Your task to perform on an android device: Set the phone to "Do not disturb". Image 0: 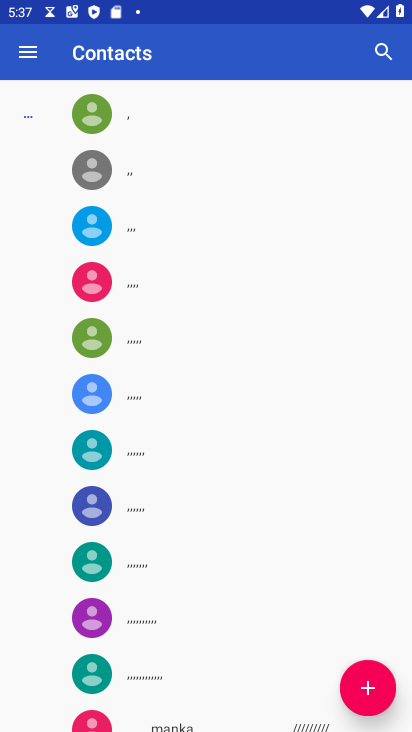
Step 0: press home button
Your task to perform on an android device: Set the phone to "Do not disturb". Image 1: 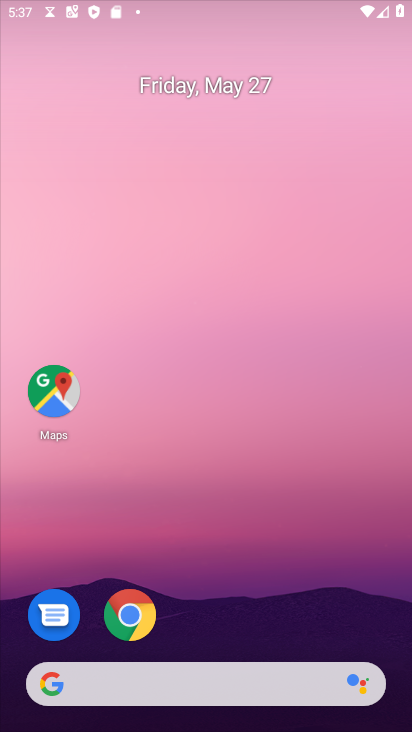
Step 1: drag from (330, 617) to (231, 10)
Your task to perform on an android device: Set the phone to "Do not disturb". Image 2: 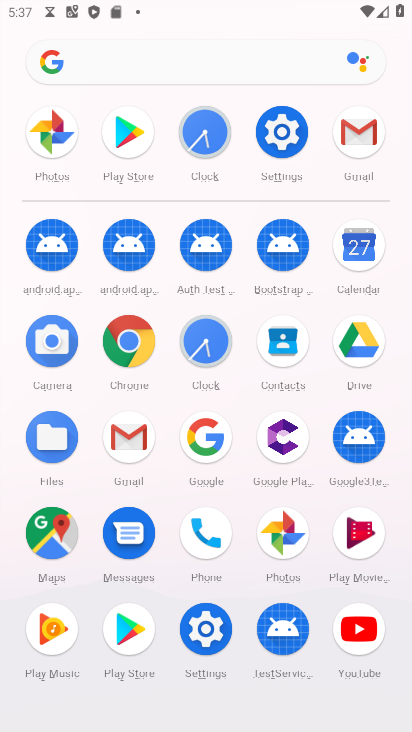
Step 2: click (295, 122)
Your task to perform on an android device: Set the phone to "Do not disturb". Image 3: 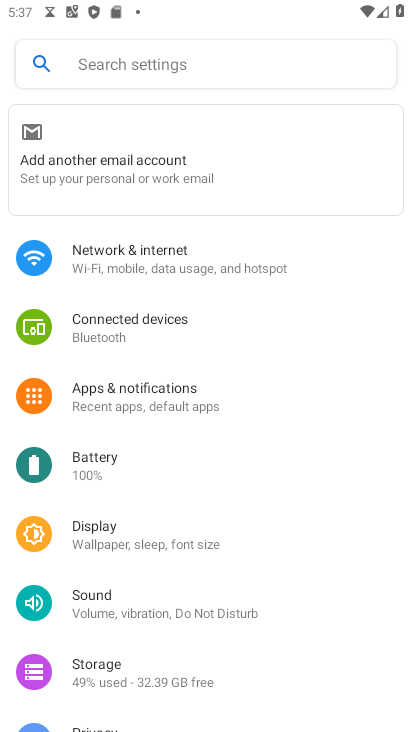
Step 3: click (148, 594)
Your task to perform on an android device: Set the phone to "Do not disturb". Image 4: 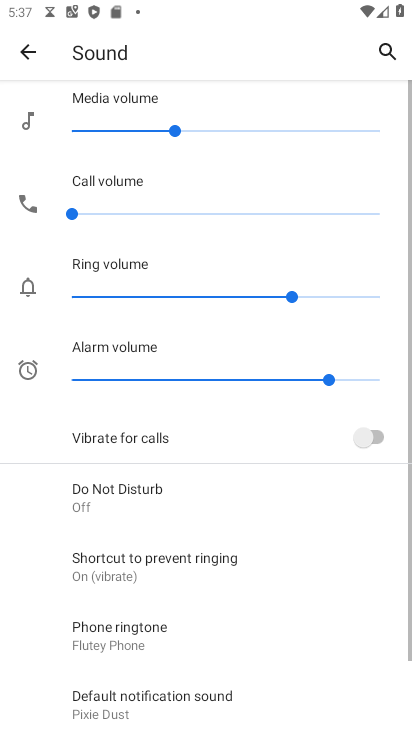
Step 4: drag from (255, 618) to (254, 191)
Your task to perform on an android device: Set the phone to "Do not disturb". Image 5: 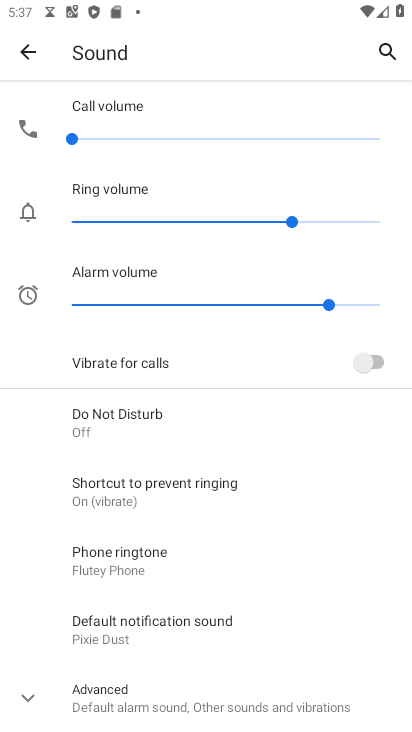
Step 5: click (149, 417)
Your task to perform on an android device: Set the phone to "Do not disturb". Image 6: 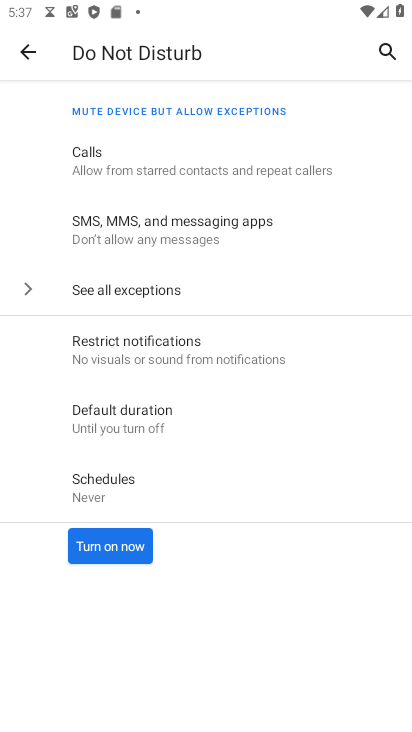
Step 6: click (113, 539)
Your task to perform on an android device: Set the phone to "Do not disturb". Image 7: 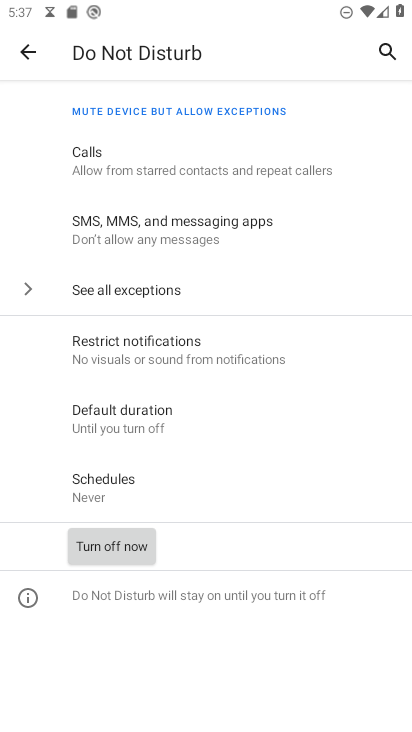
Step 7: task complete